Your task to perform on an android device: Open settings on Google Maps Image 0: 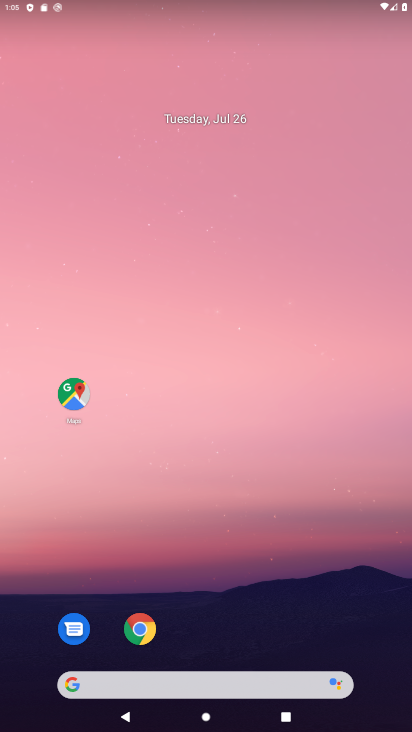
Step 0: click (69, 387)
Your task to perform on an android device: Open settings on Google Maps Image 1: 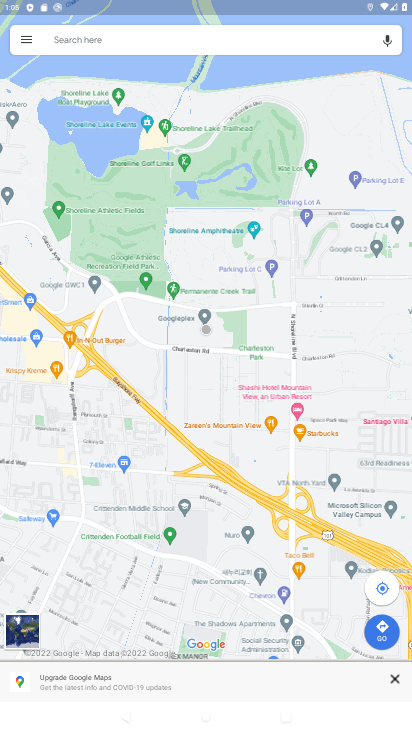
Step 1: click (19, 34)
Your task to perform on an android device: Open settings on Google Maps Image 2: 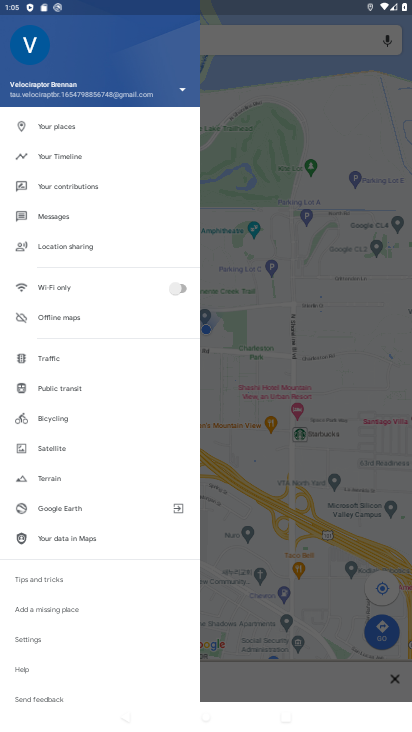
Step 2: click (33, 636)
Your task to perform on an android device: Open settings on Google Maps Image 3: 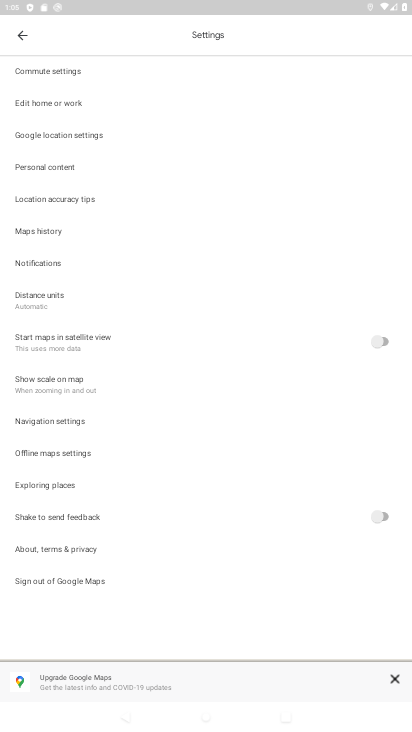
Step 3: task complete